Your task to perform on an android device: Search for the best way to make a resume. Image 0: 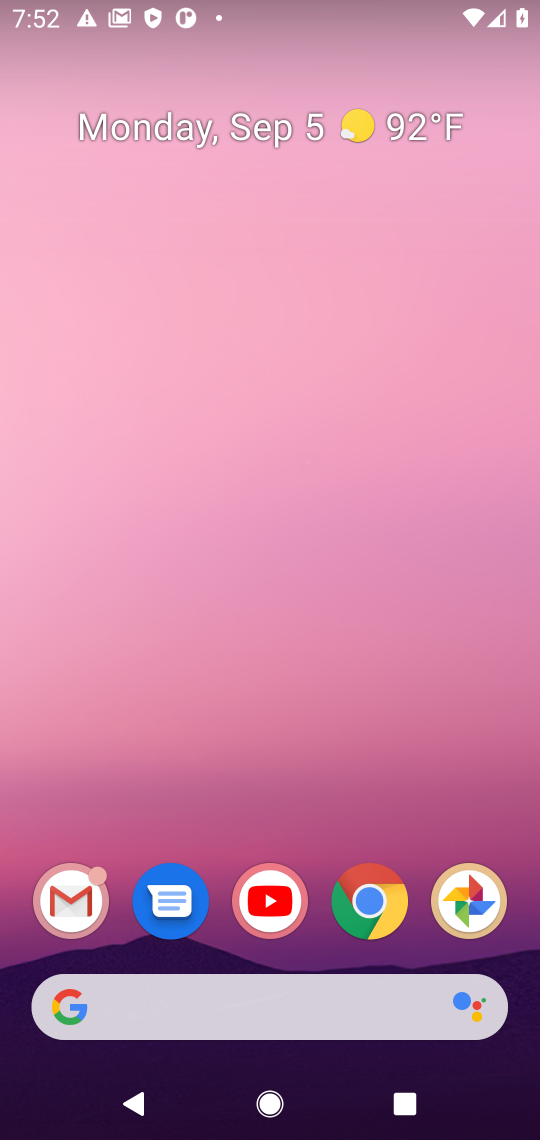
Step 0: click (396, 894)
Your task to perform on an android device: Search for the best way to make a resume. Image 1: 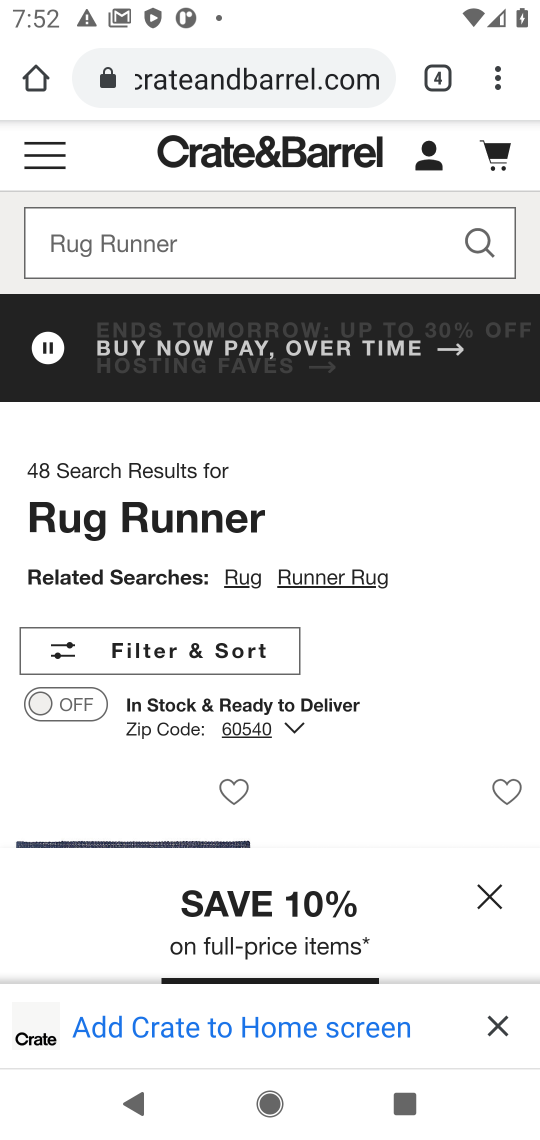
Step 1: click (316, 94)
Your task to perform on an android device: Search for the best way to make a resume. Image 2: 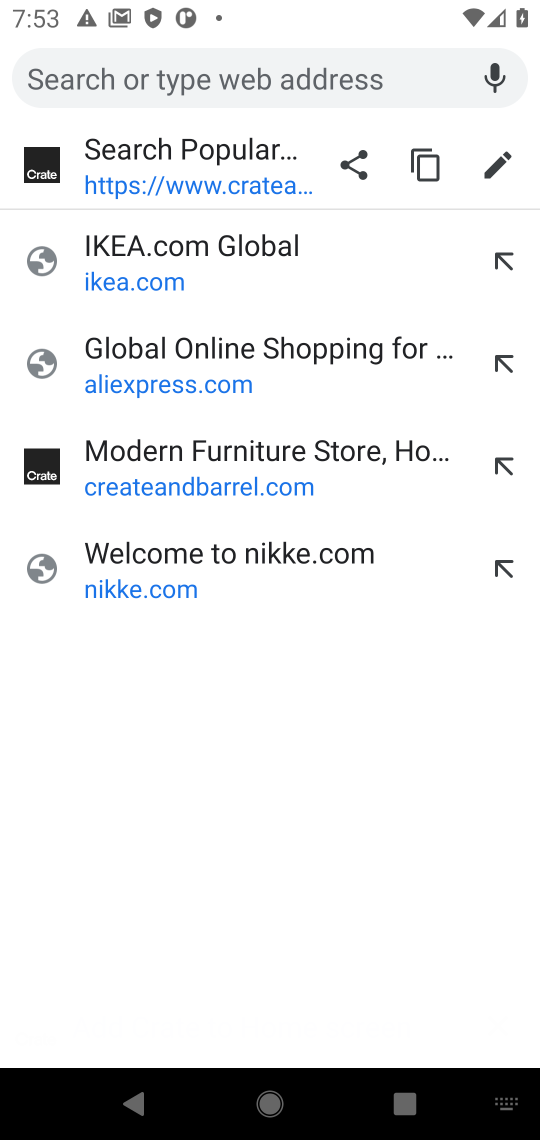
Step 2: type "best way to make resume"
Your task to perform on an android device: Search for the best way to make a resume. Image 3: 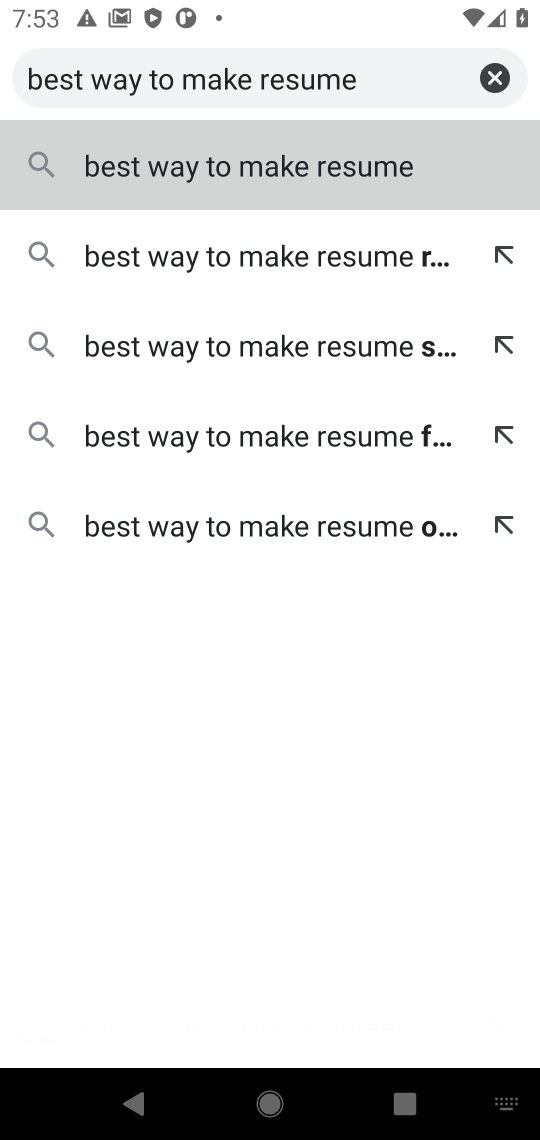
Step 3: click (356, 179)
Your task to perform on an android device: Search for the best way to make a resume. Image 4: 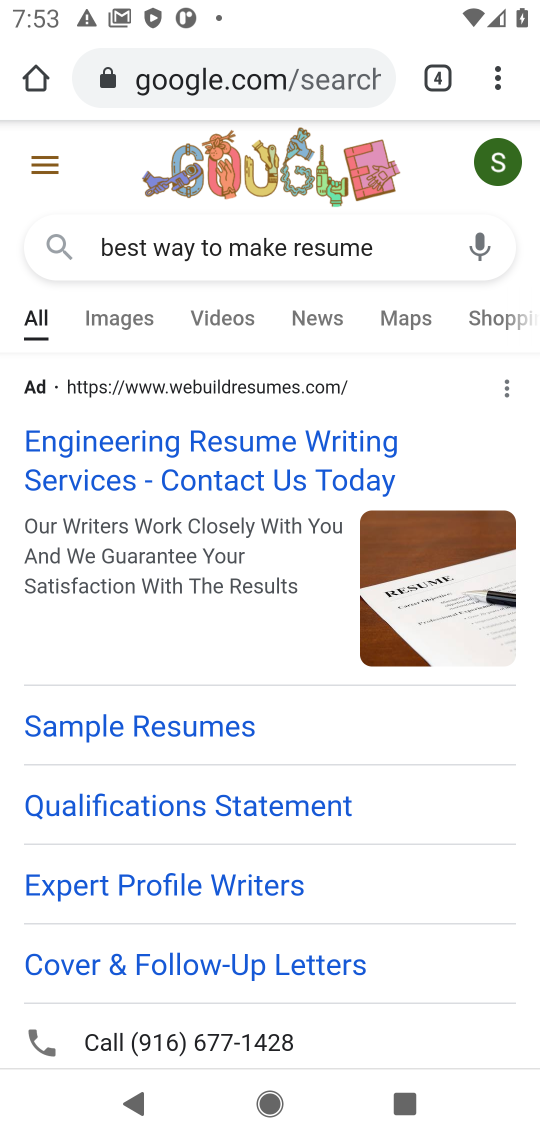
Step 4: task complete